Your task to perform on an android device: Go to Wikipedia Image 0: 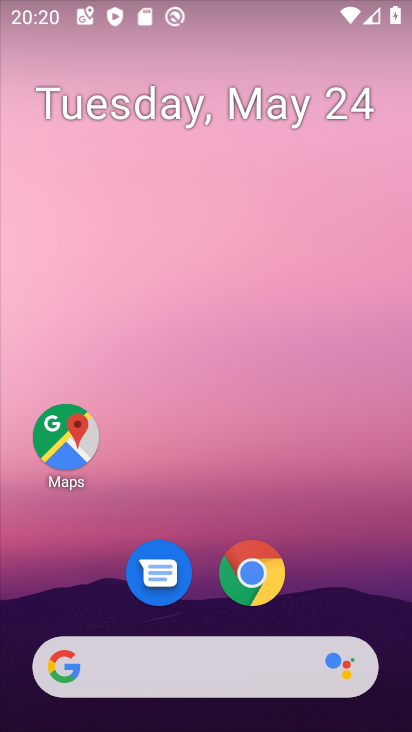
Step 0: click (271, 575)
Your task to perform on an android device: Go to Wikipedia Image 1: 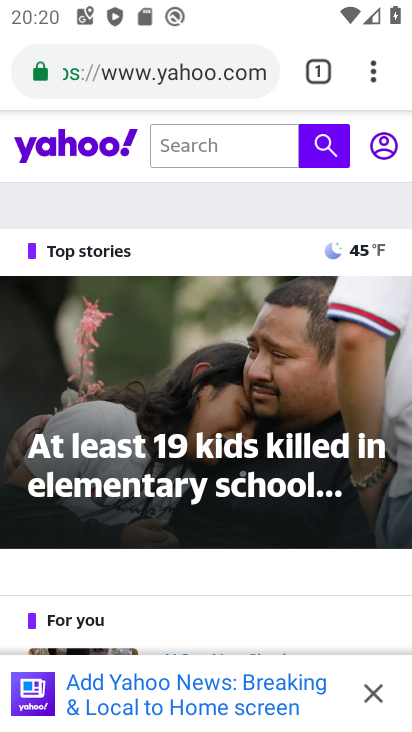
Step 1: click (195, 71)
Your task to perform on an android device: Go to Wikipedia Image 2: 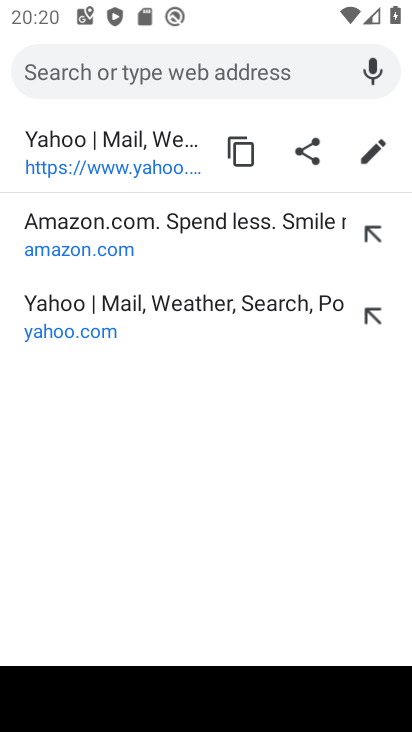
Step 2: type "wikipedia"
Your task to perform on an android device: Go to Wikipedia Image 3: 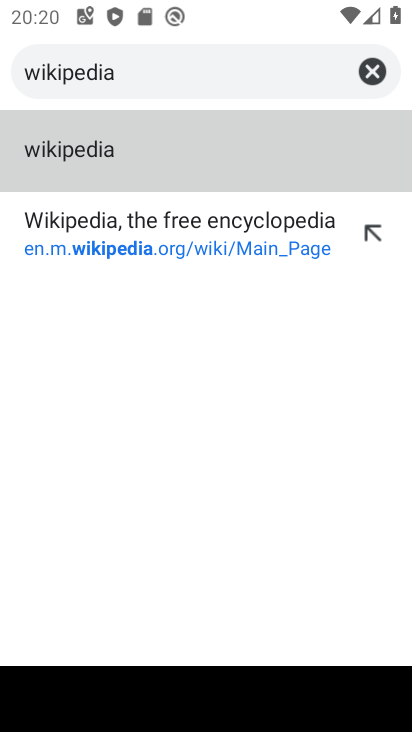
Step 3: click (45, 149)
Your task to perform on an android device: Go to Wikipedia Image 4: 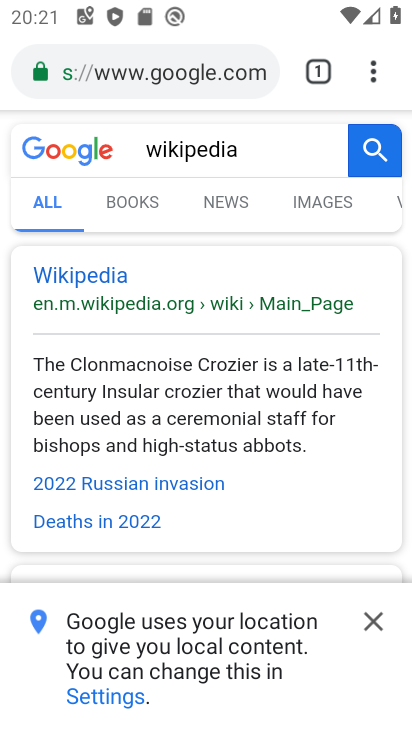
Step 4: click (83, 275)
Your task to perform on an android device: Go to Wikipedia Image 5: 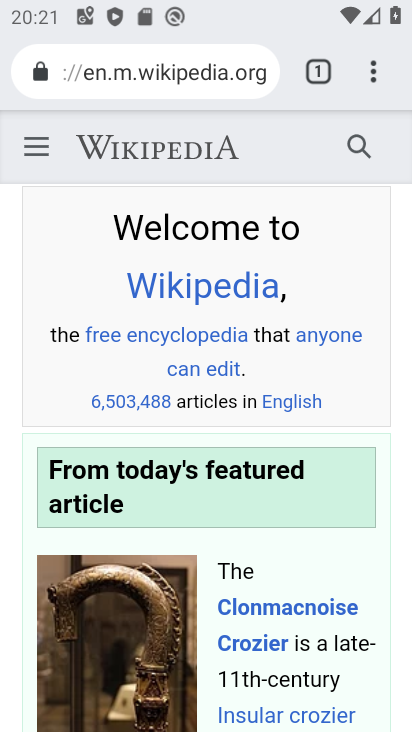
Step 5: task complete